Your task to perform on an android device: Search for the best rated 150-piece drill bit set on Aliexpress. Image 0: 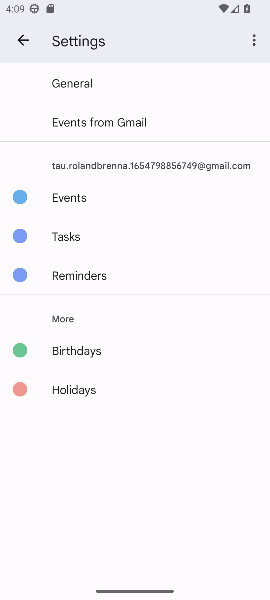
Step 0: press home button
Your task to perform on an android device: Search for the best rated 150-piece drill bit set on Aliexpress. Image 1: 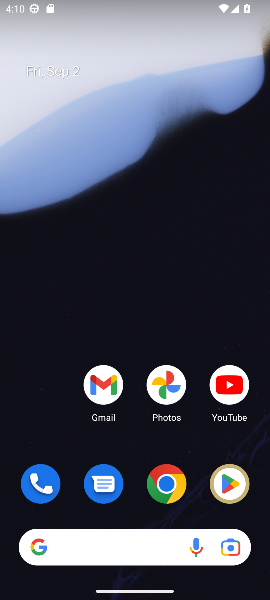
Step 1: click (171, 488)
Your task to perform on an android device: Search for the best rated 150-piece drill bit set on Aliexpress. Image 2: 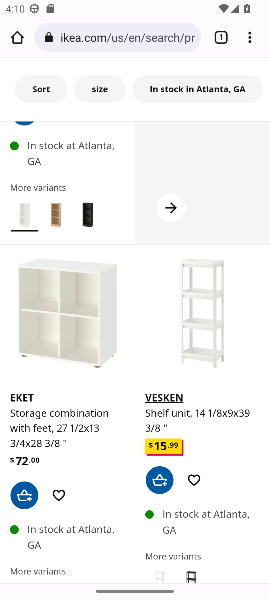
Step 2: click (152, 34)
Your task to perform on an android device: Search for the best rated 150-piece drill bit set on Aliexpress. Image 3: 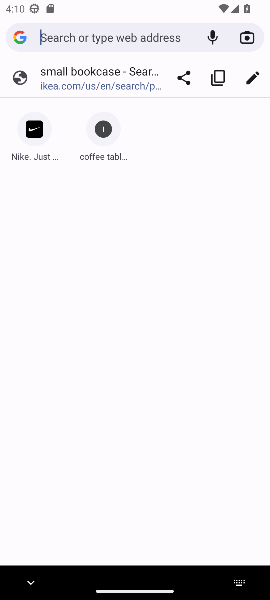
Step 3: type "Aliexpress"
Your task to perform on an android device: Search for the best rated 150-piece drill bit set on Aliexpress. Image 4: 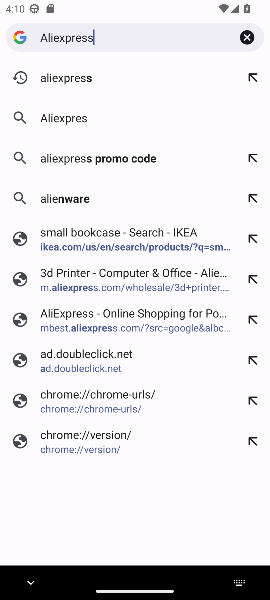
Step 4: press enter
Your task to perform on an android device: Search for the best rated 150-piece drill bit set on Aliexpress. Image 5: 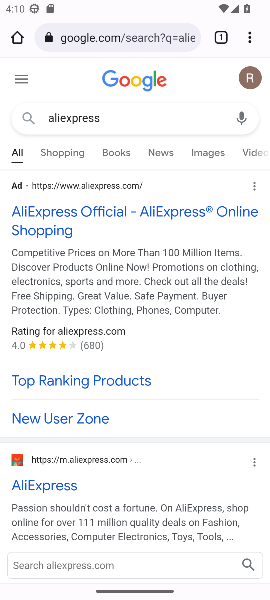
Step 5: click (71, 213)
Your task to perform on an android device: Search for the best rated 150-piece drill bit set on Aliexpress. Image 6: 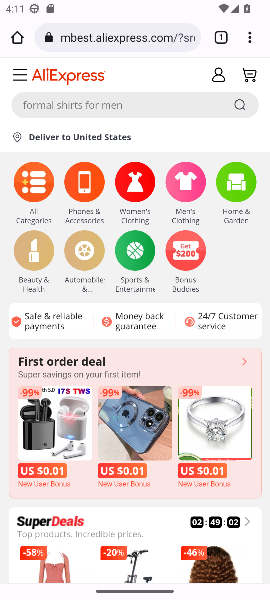
Step 6: click (69, 105)
Your task to perform on an android device: Search for the best rated 150-piece drill bit set on Aliexpress. Image 7: 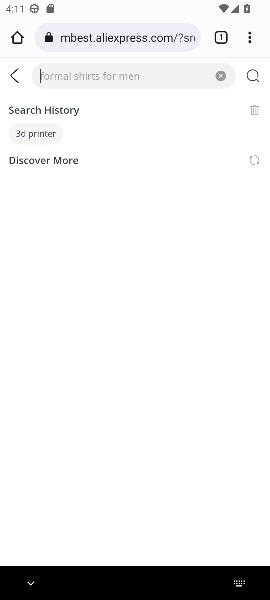
Step 7: click (240, 104)
Your task to perform on an android device: Search for the best rated 150-piece drill bit set on Aliexpress. Image 8: 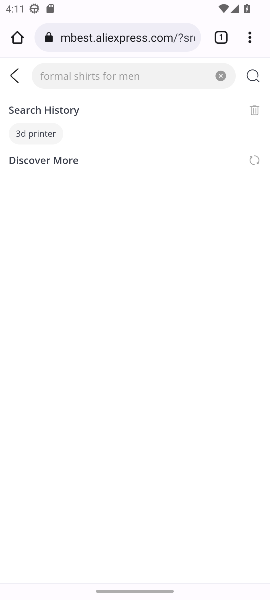
Step 8: click (56, 72)
Your task to perform on an android device: Search for the best rated 150-piece drill bit set on Aliexpress. Image 9: 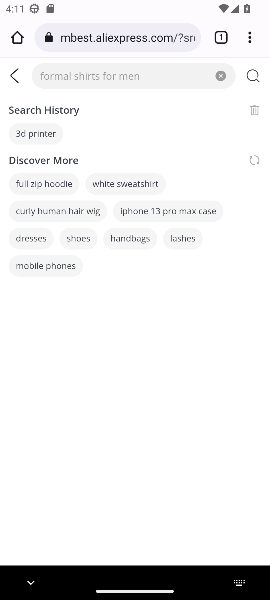
Step 9: type "150-piece drill bit set"
Your task to perform on an android device: Search for the best rated 150-piece drill bit set on Aliexpress. Image 10: 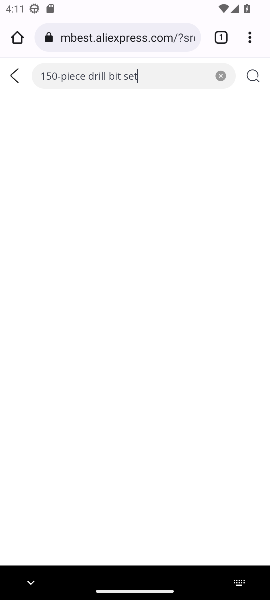
Step 10: press enter
Your task to perform on an android device: Search for the best rated 150-piece drill bit set on Aliexpress. Image 11: 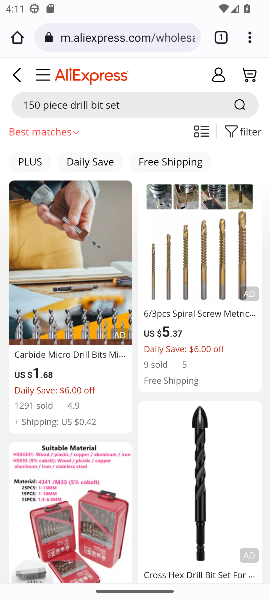
Step 11: task complete